Your task to perform on an android device: all mails in gmail Image 0: 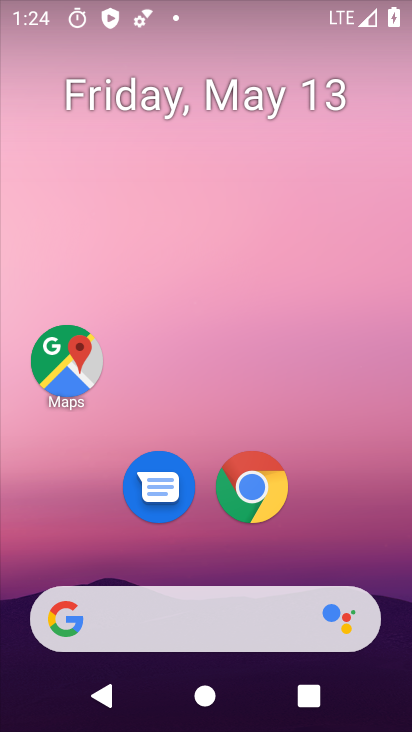
Step 0: drag from (302, 512) to (302, 206)
Your task to perform on an android device: all mails in gmail Image 1: 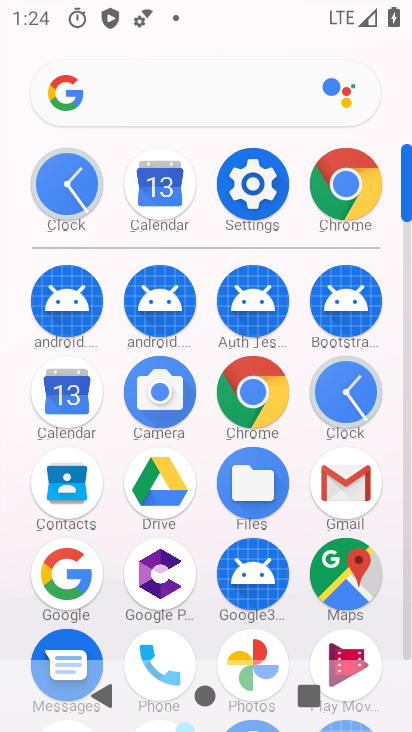
Step 1: click (330, 488)
Your task to perform on an android device: all mails in gmail Image 2: 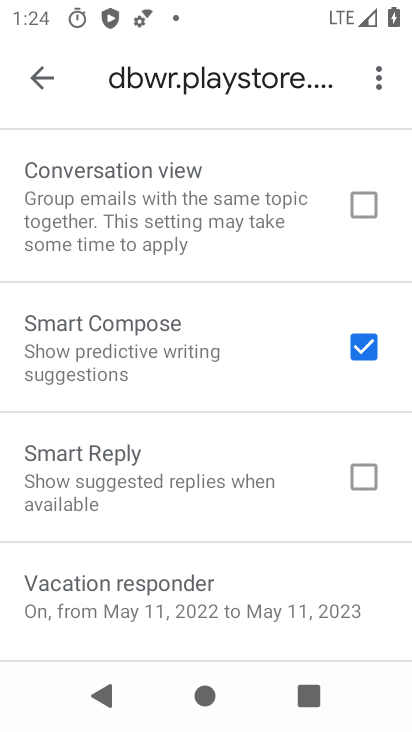
Step 2: click (46, 82)
Your task to perform on an android device: all mails in gmail Image 3: 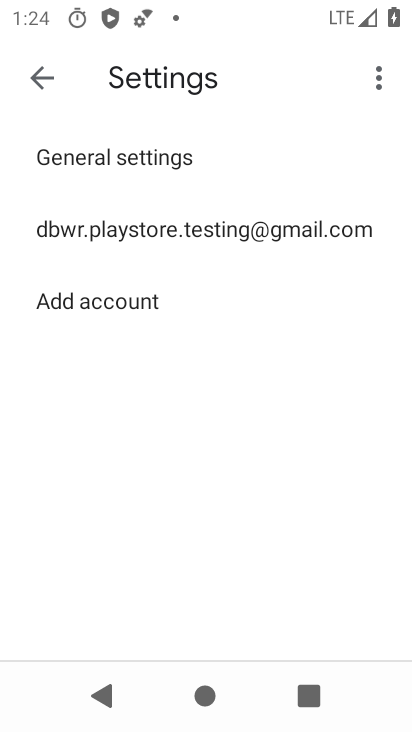
Step 3: click (46, 82)
Your task to perform on an android device: all mails in gmail Image 4: 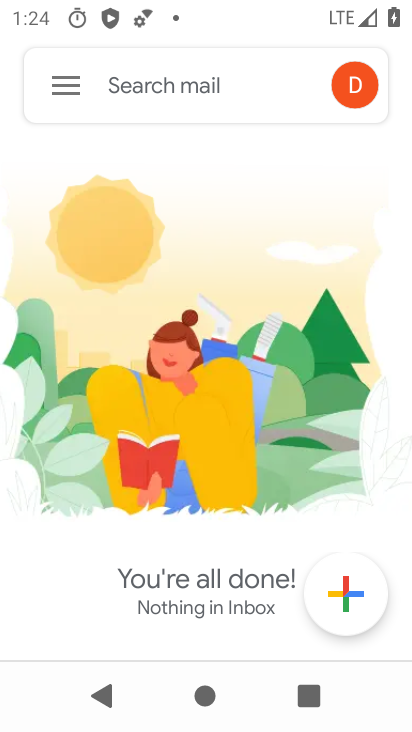
Step 4: click (70, 87)
Your task to perform on an android device: all mails in gmail Image 5: 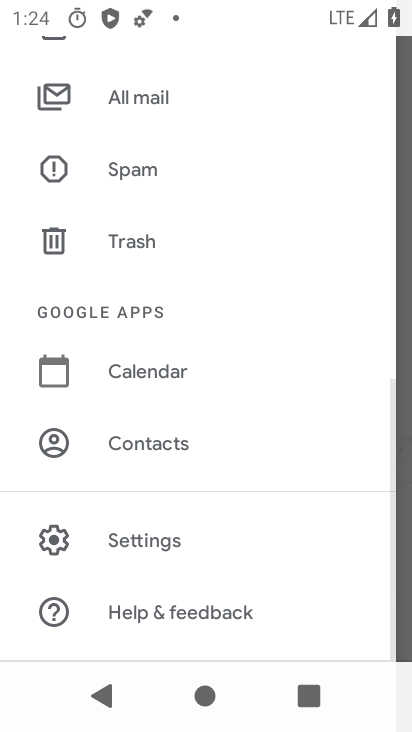
Step 5: click (157, 106)
Your task to perform on an android device: all mails in gmail Image 6: 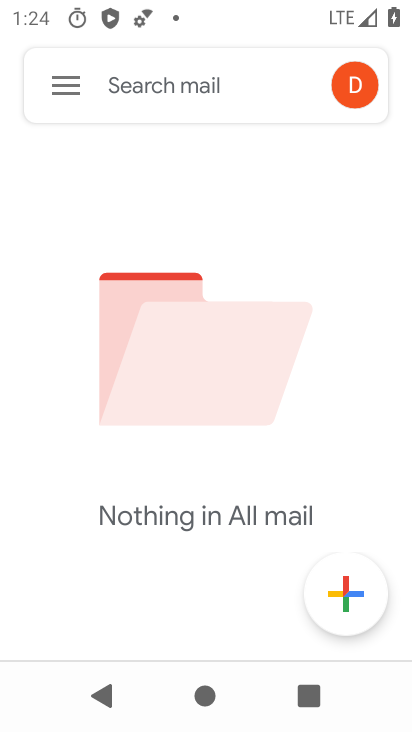
Step 6: task complete